Your task to perform on an android device: move an email to a new category in the gmail app Image 0: 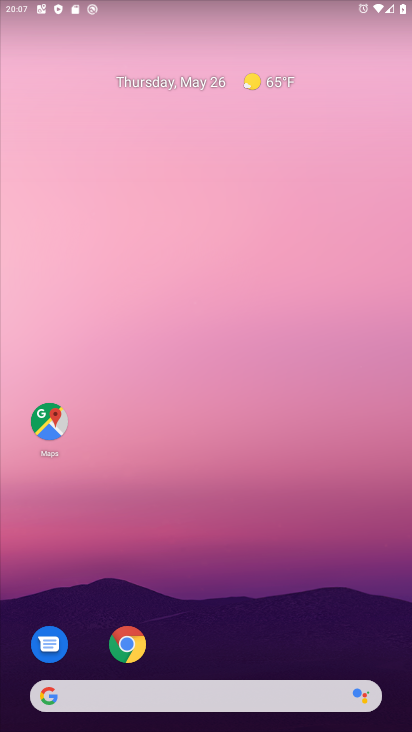
Step 0: click (332, 36)
Your task to perform on an android device: move an email to a new category in the gmail app Image 1: 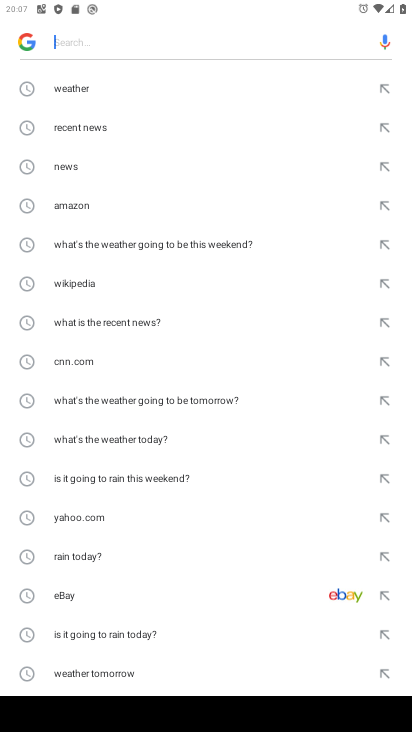
Step 1: press home button
Your task to perform on an android device: move an email to a new category in the gmail app Image 2: 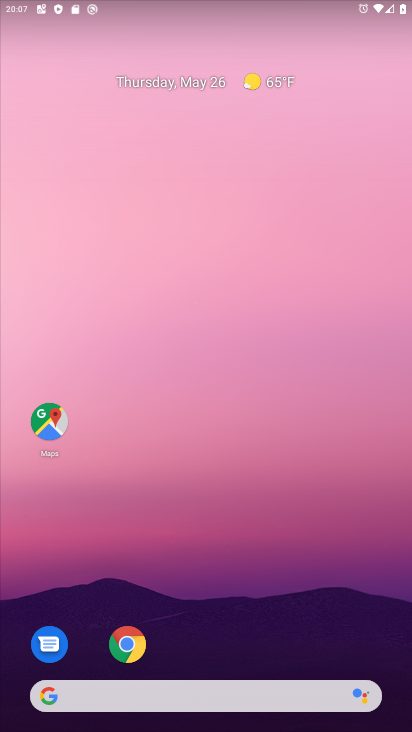
Step 2: drag from (196, 459) to (211, 220)
Your task to perform on an android device: move an email to a new category in the gmail app Image 3: 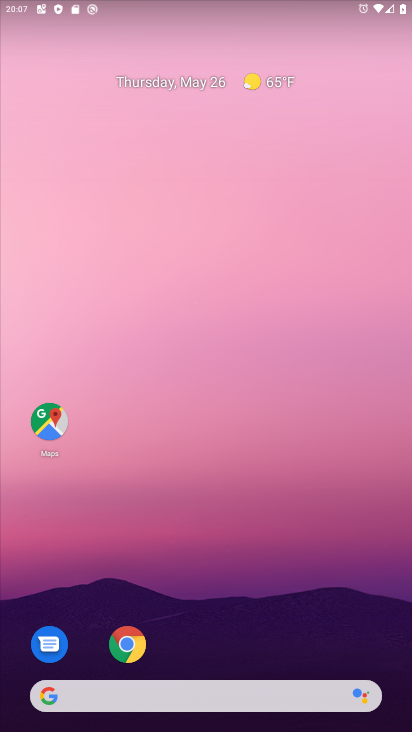
Step 3: drag from (176, 654) to (248, 222)
Your task to perform on an android device: move an email to a new category in the gmail app Image 4: 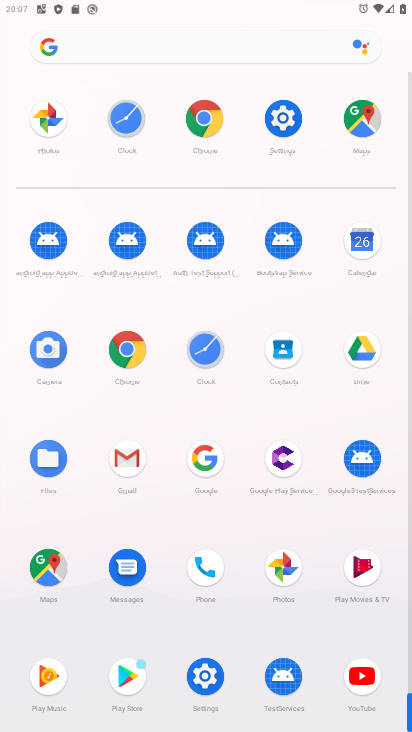
Step 4: click (128, 459)
Your task to perform on an android device: move an email to a new category in the gmail app Image 5: 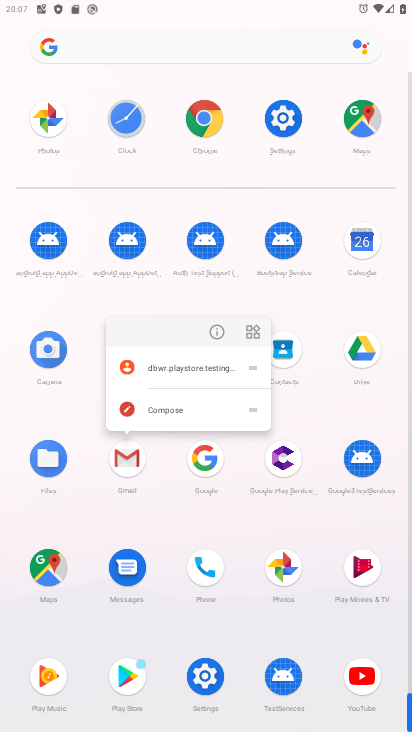
Step 5: click (220, 333)
Your task to perform on an android device: move an email to a new category in the gmail app Image 6: 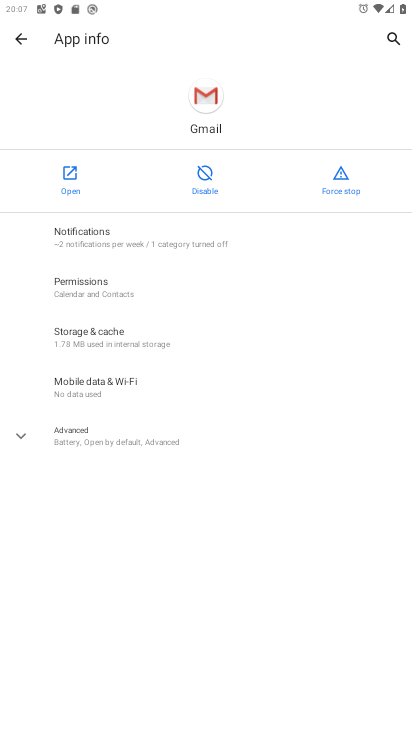
Step 6: click (60, 173)
Your task to perform on an android device: move an email to a new category in the gmail app Image 7: 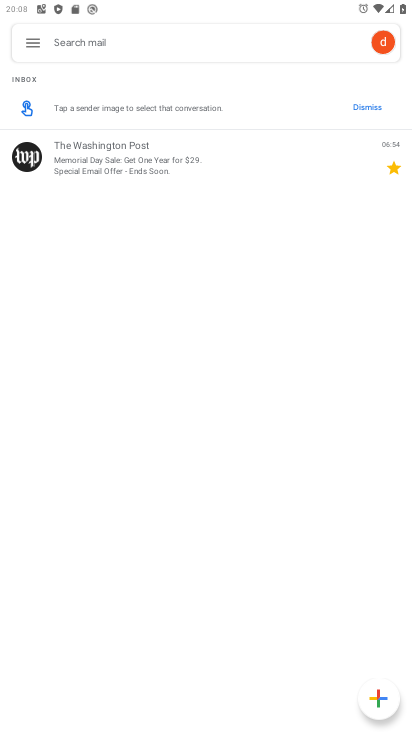
Step 7: drag from (212, 428) to (299, 153)
Your task to perform on an android device: move an email to a new category in the gmail app Image 8: 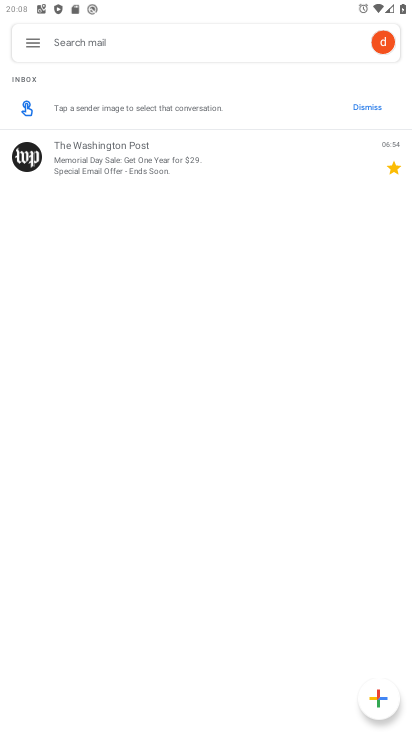
Step 8: click (34, 32)
Your task to perform on an android device: move an email to a new category in the gmail app Image 9: 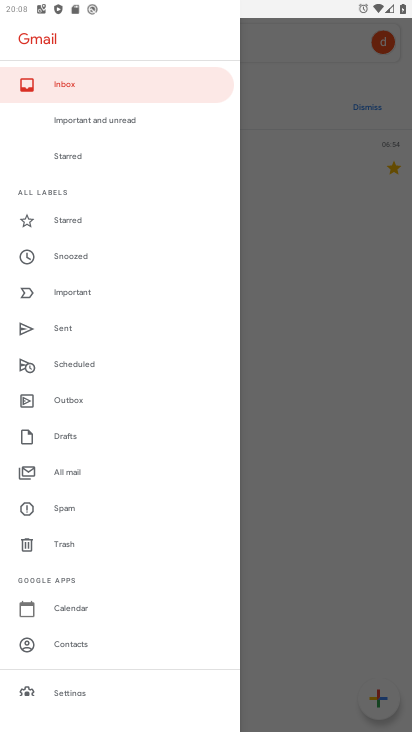
Step 9: click (128, 73)
Your task to perform on an android device: move an email to a new category in the gmail app Image 10: 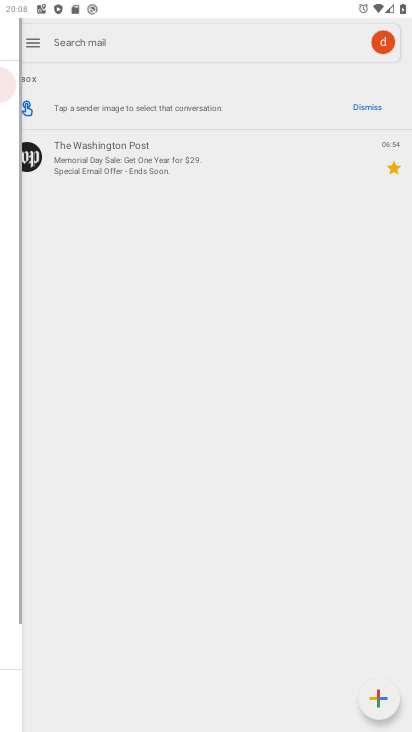
Step 10: click (357, 301)
Your task to perform on an android device: move an email to a new category in the gmail app Image 11: 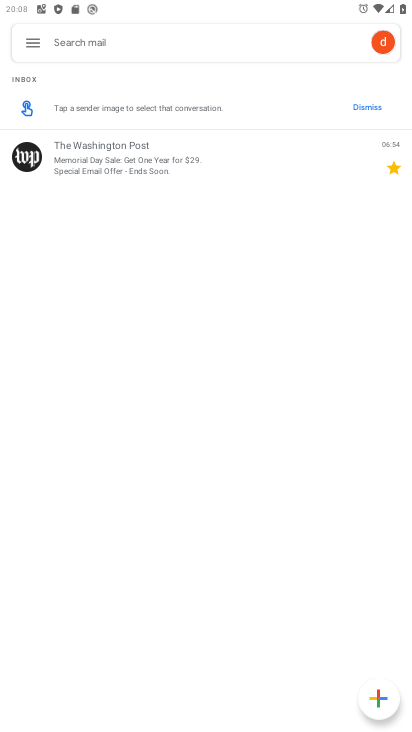
Step 11: click (159, 165)
Your task to perform on an android device: move an email to a new category in the gmail app Image 12: 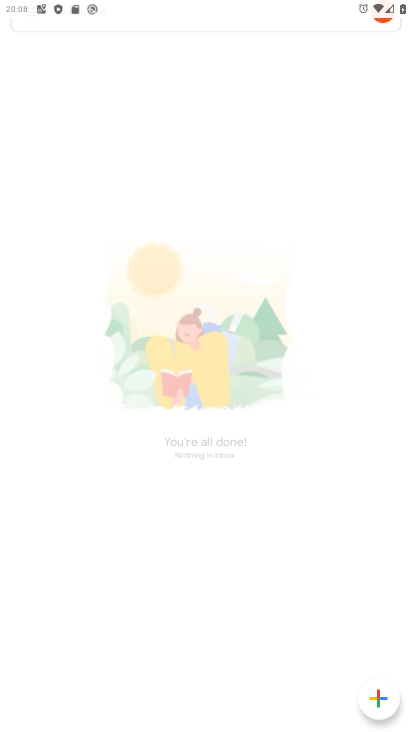
Step 12: click (385, 81)
Your task to perform on an android device: move an email to a new category in the gmail app Image 13: 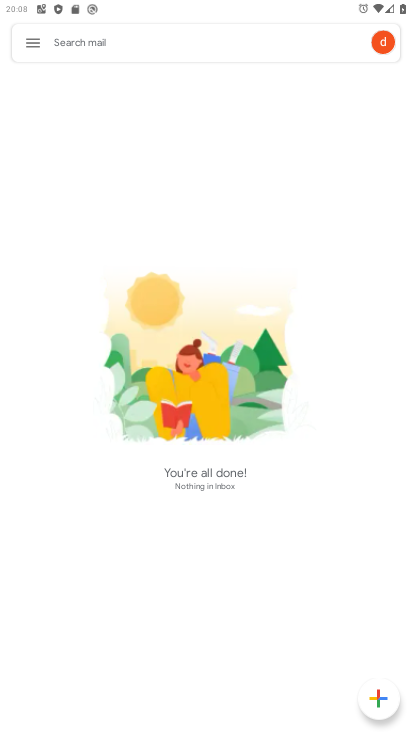
Step 13: task complete